Your task to perform on an android device: Add asus rog to the cart on ebay.com, then select checkout. Image 0: 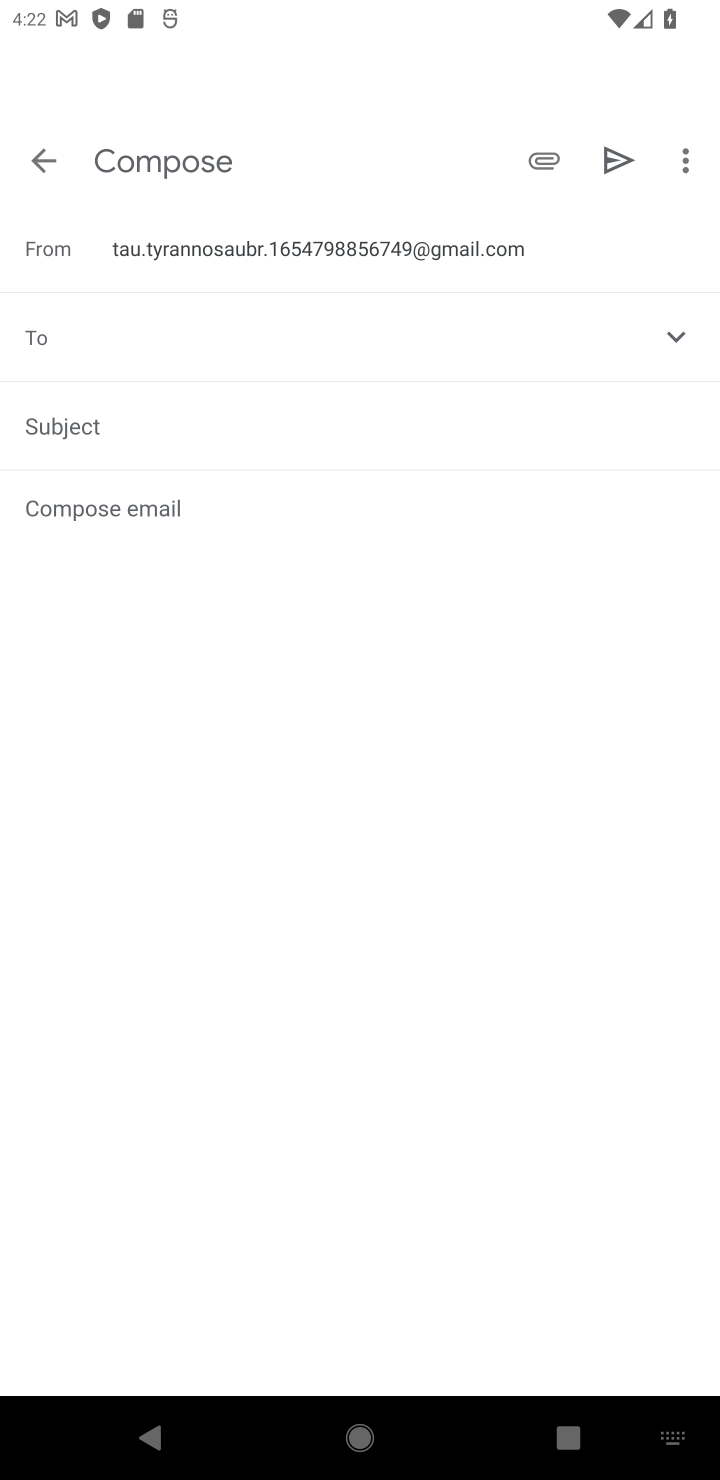
Step 0: press home button
Your task to perform on an android device: Add asus rog to the cart on ebay.com, then select checkout. Image 1: 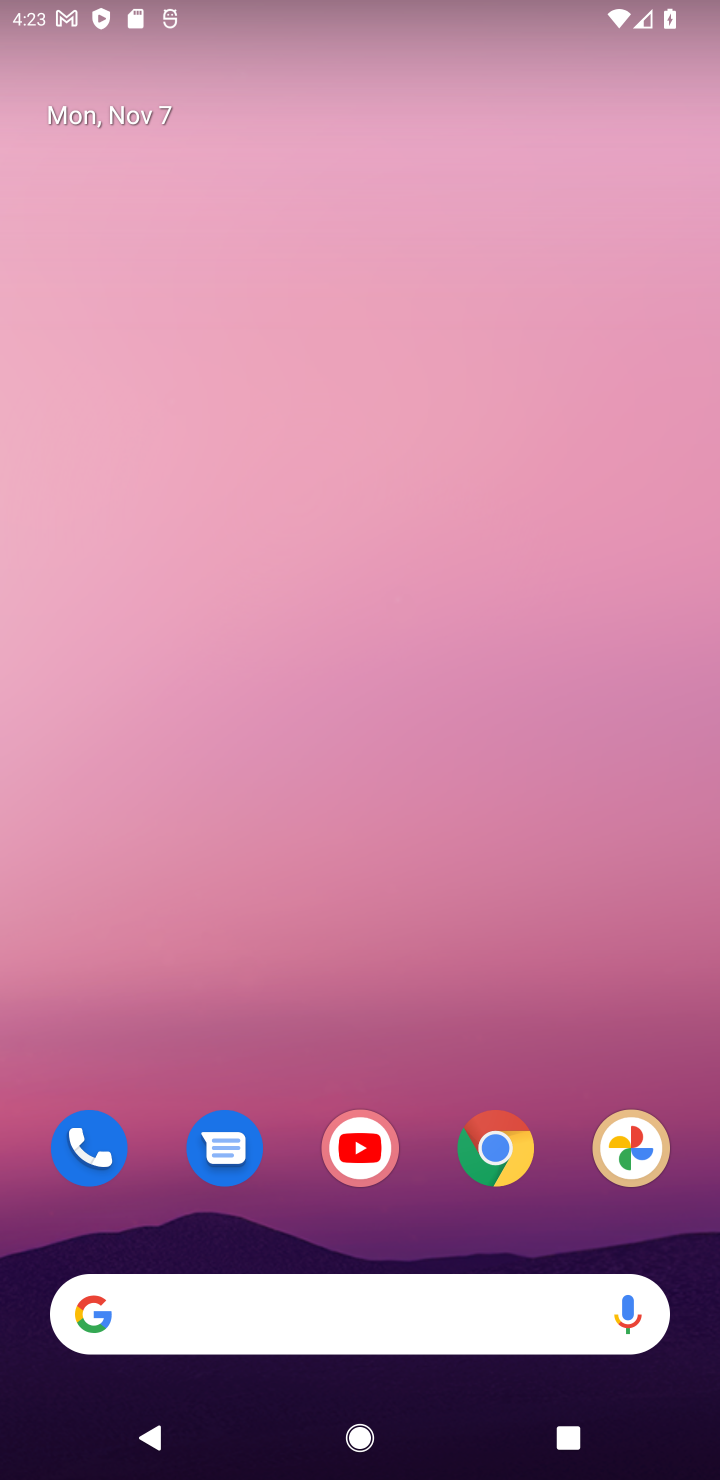
Step 1: click (497, 1152)
Your task to perform on an android device: Add asus rog to the cart on ebay.com, then select checkout. Image 2: 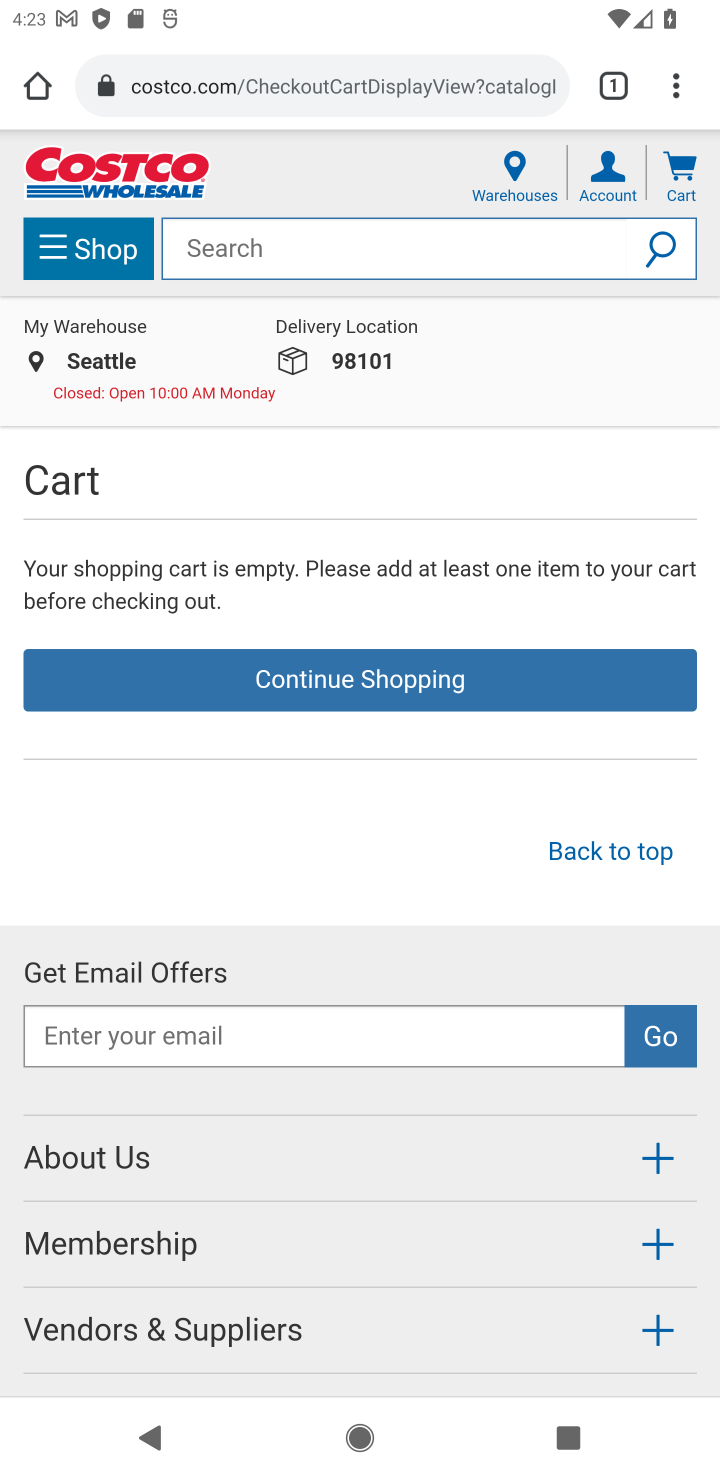
Step 2: click (314, 57)
Your task to perform on an android device: Add asus rog to the cart on ebay.com, then select checkout. Image 3: 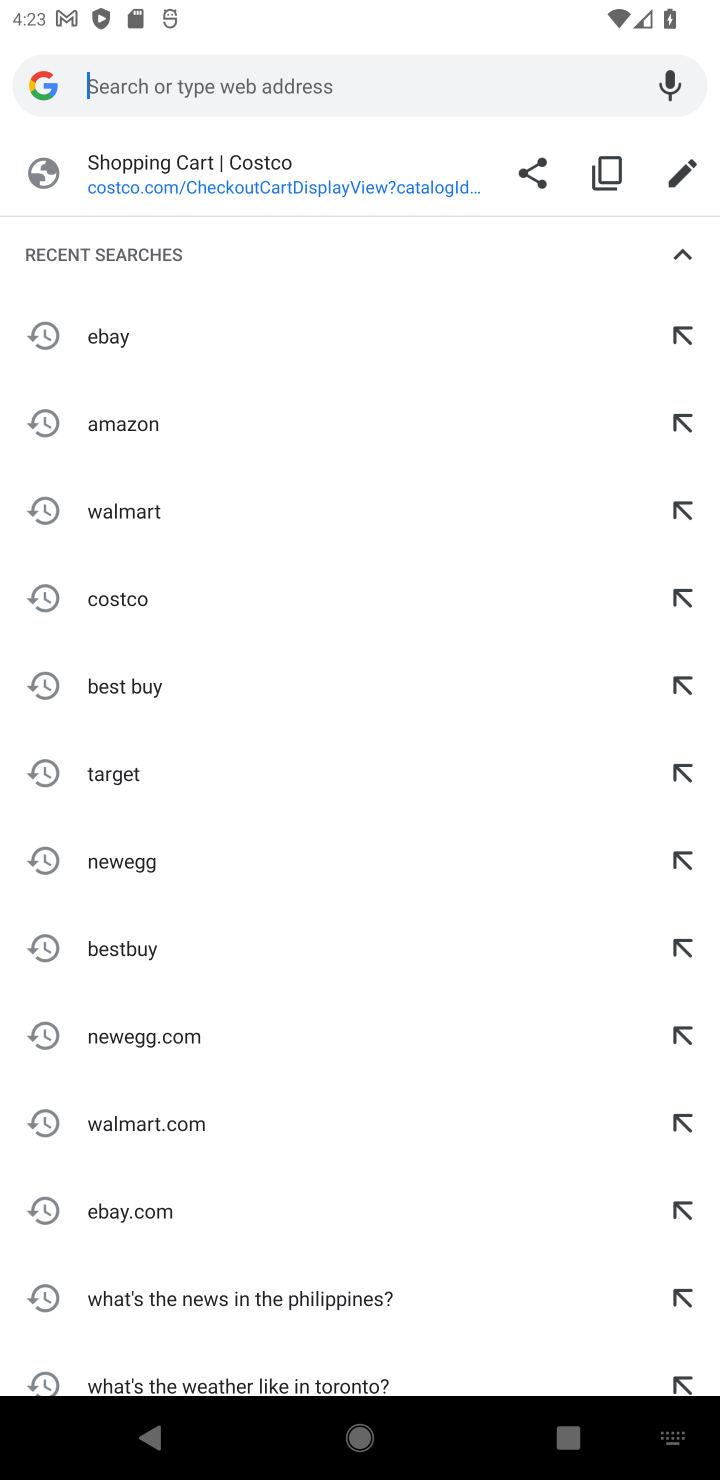
Step 3: type "ebay.com"
Your task to perform on an android device: Add asus rog to the cart on ebay.com, then select checkout. Image 4: 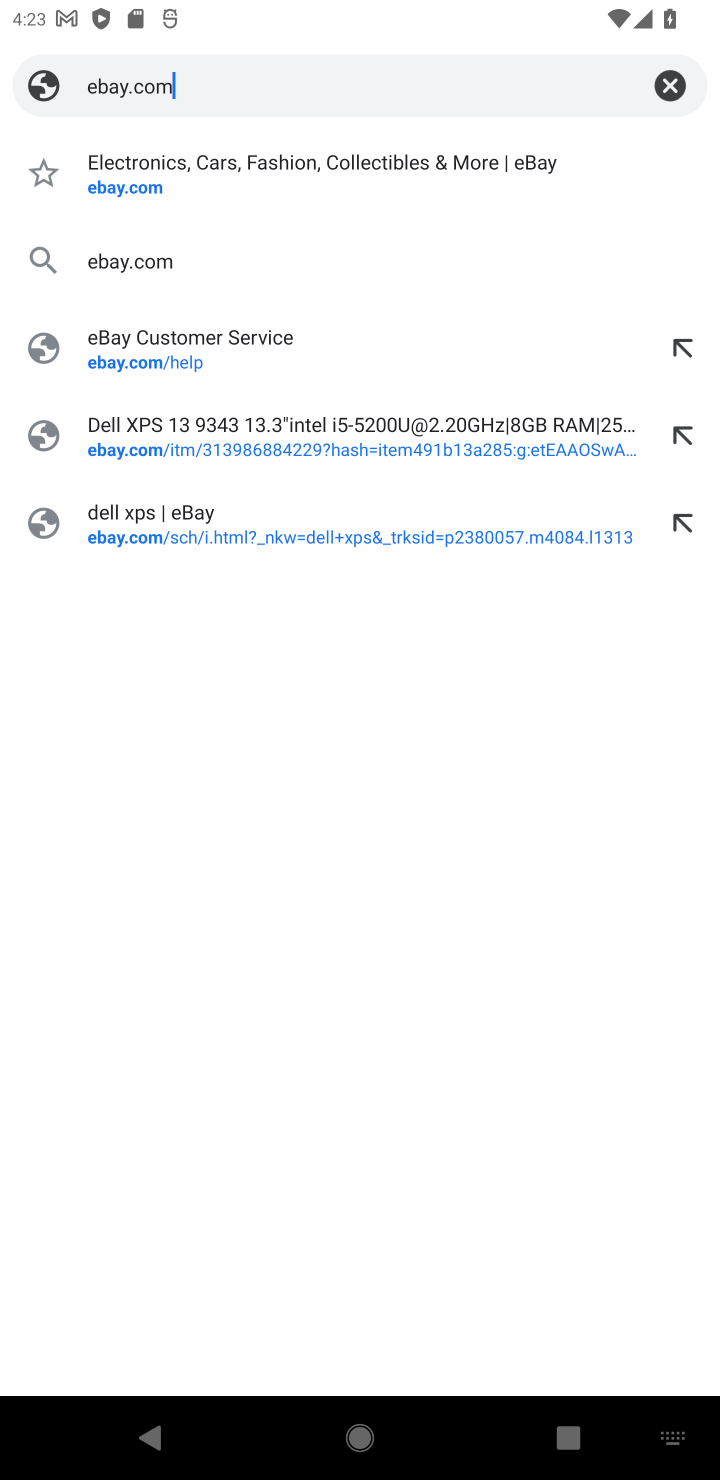
Step 4: click (120, 168)
Your task to perform on an android device: Add asus rog to the cart on ebay.com, then select checkout. Image 5: 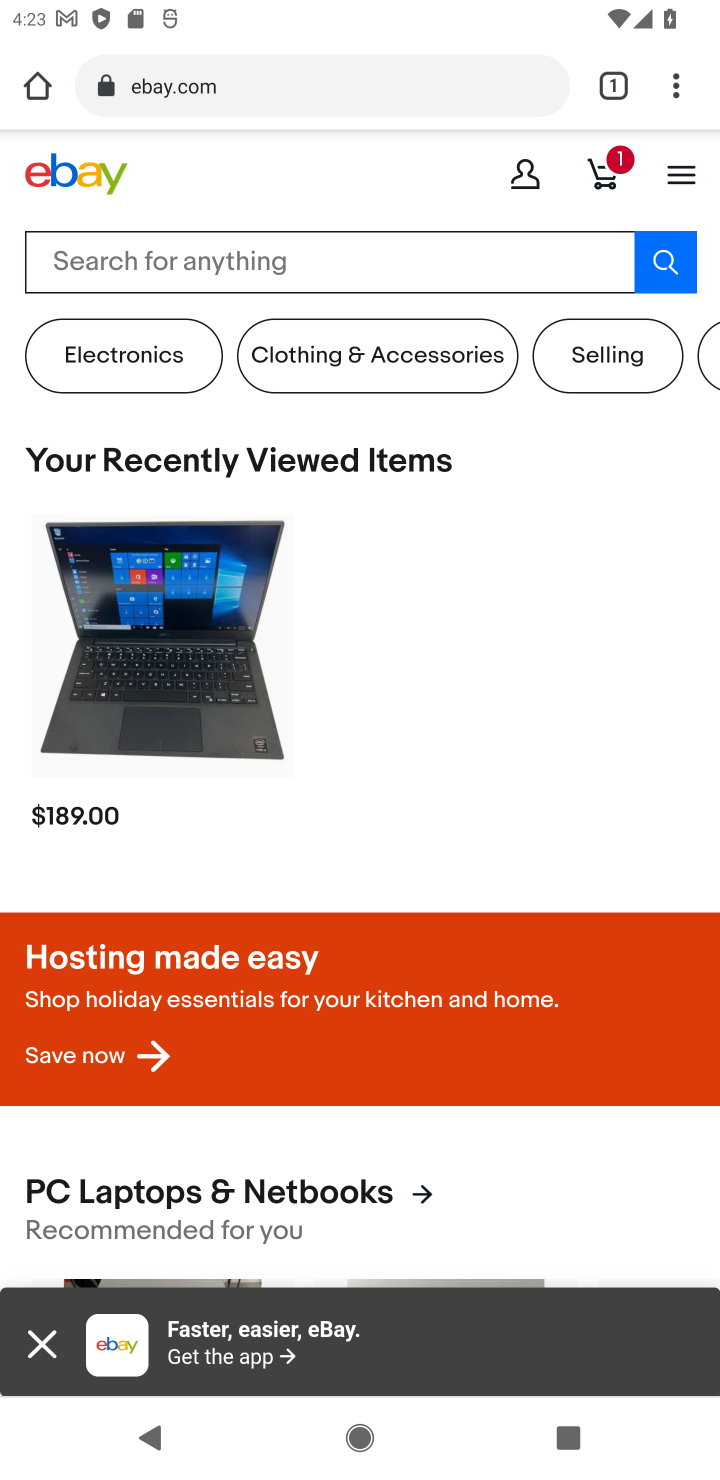
Step 5: click (309, 253)
Your task to perform on an android device: Add asus rog to the cart on ebay.com, then select checkout. Image 6: 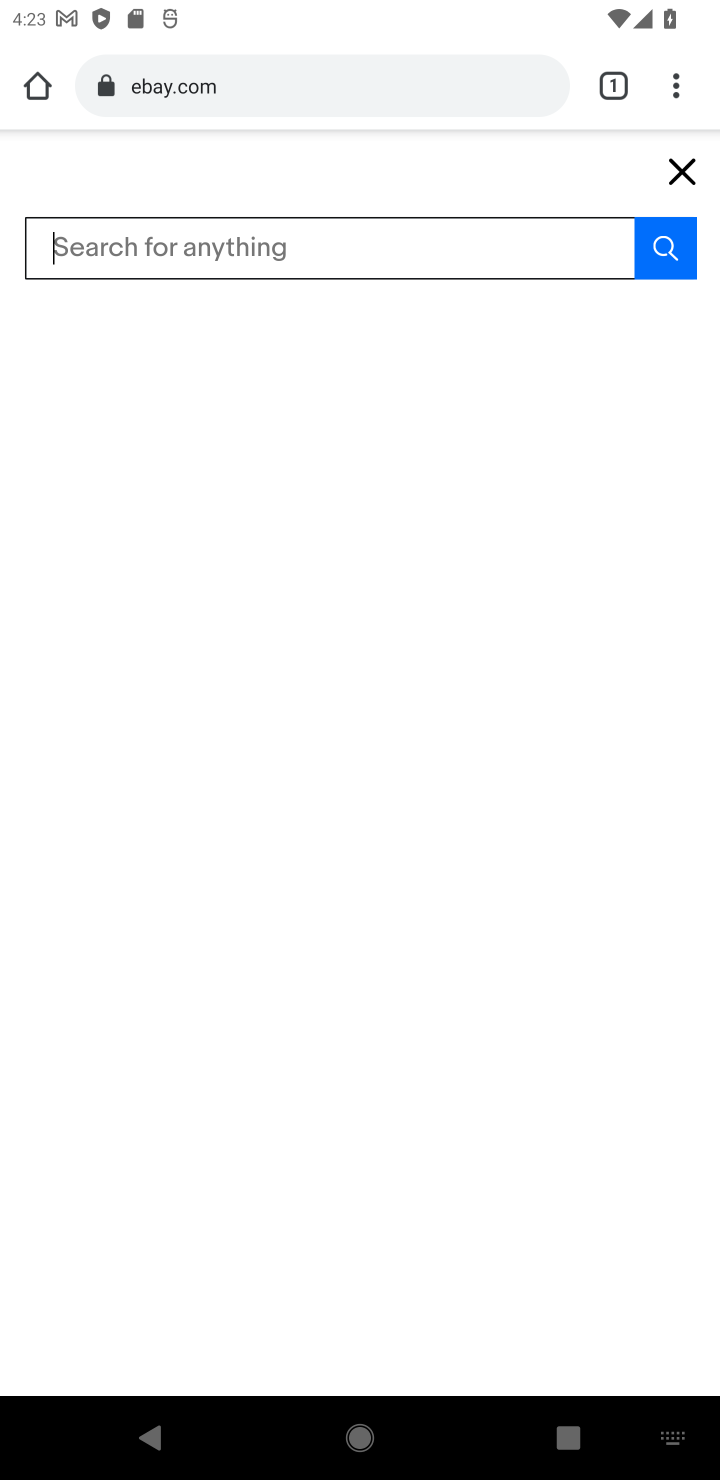
Step 6: type "asus rog"
Your task to perform on an android device: Add asus rog to the cart on ebay.com, then select checkout. Image 7: 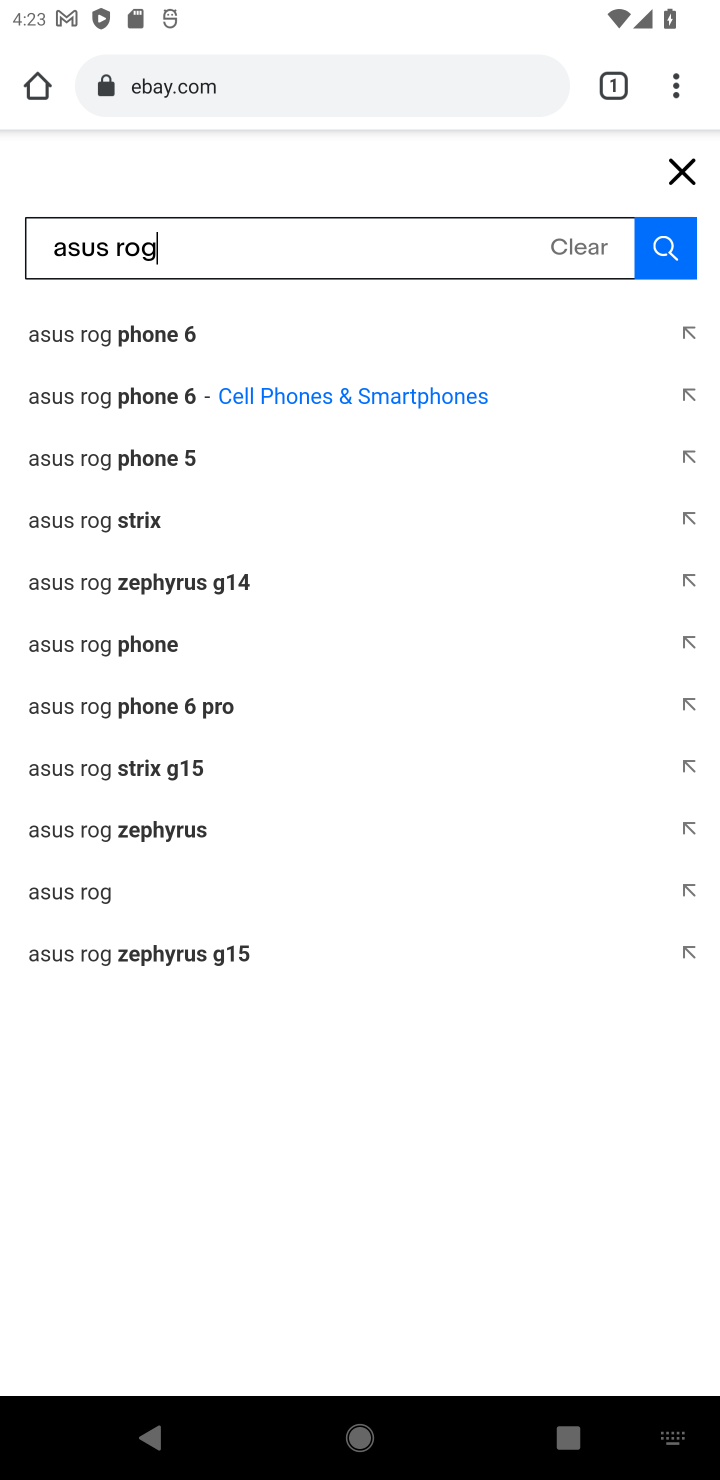
Step 7: click (663, 235)
Your task to perform on an android device: Add asus rog to the cart on ebay.com, then select checkout. Image 8: 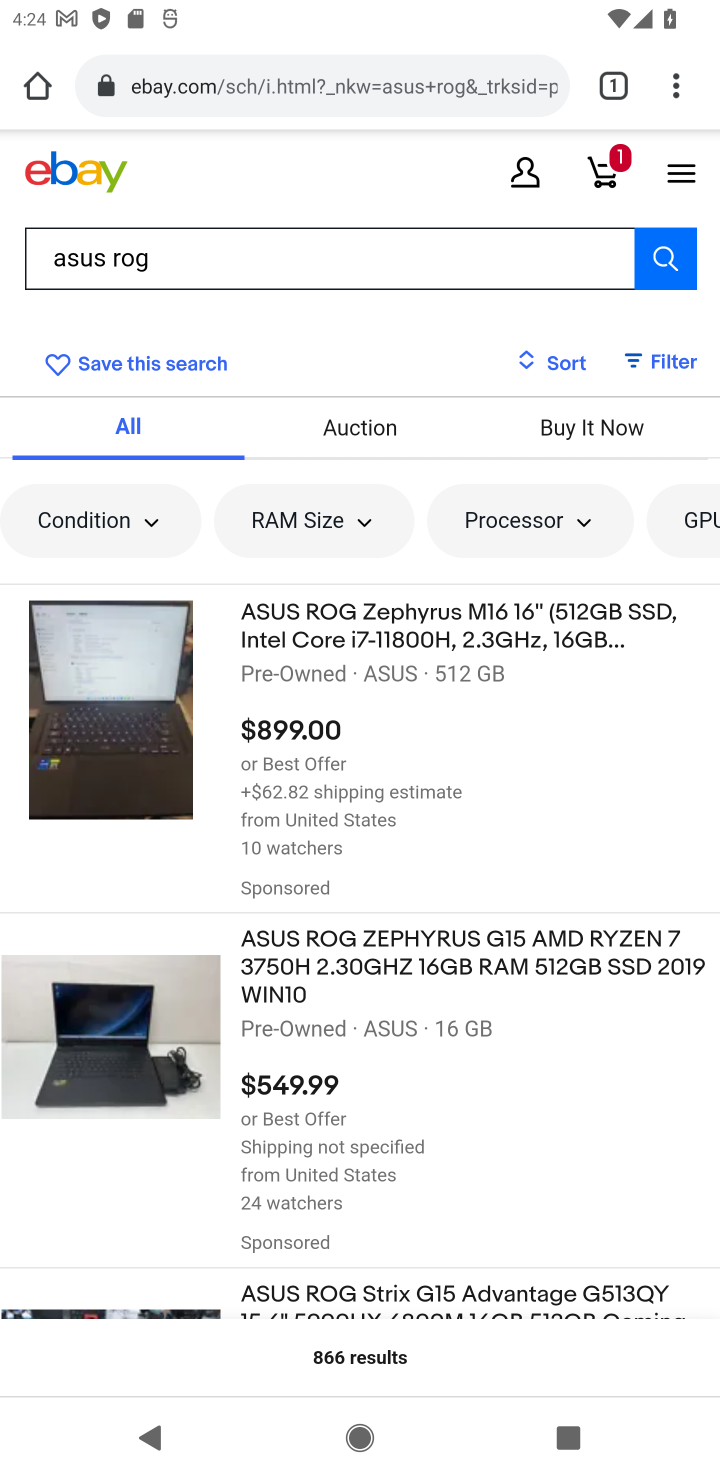
Step 8: click (335, 605)
Your task to perform on an android device: Add asus rog to the cart on ebay.com, then select checkout. Image 9: 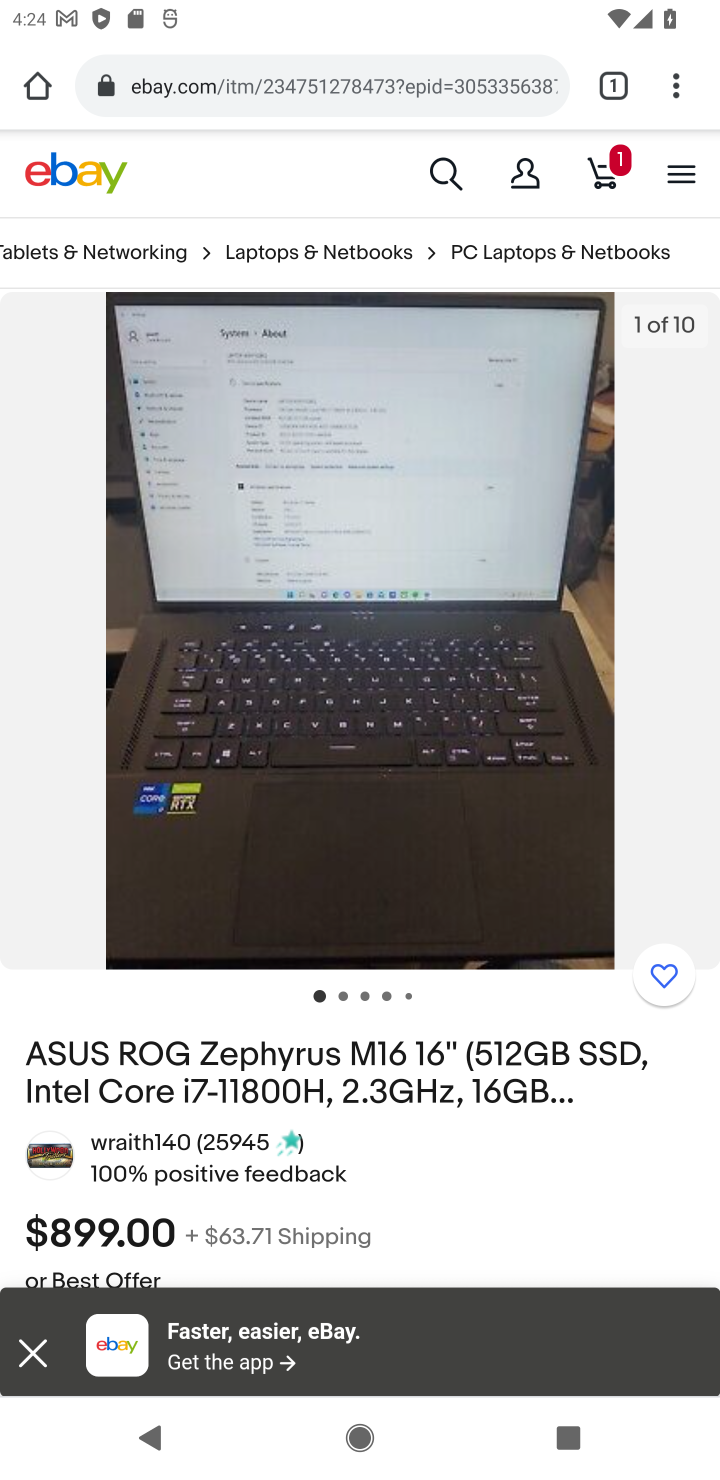
Step 9: drag from (361, 1108) to (363, 315)
Your task to perform on an android device: Add asus rog to the cart on ebay.com, then select checkout. Image 10: 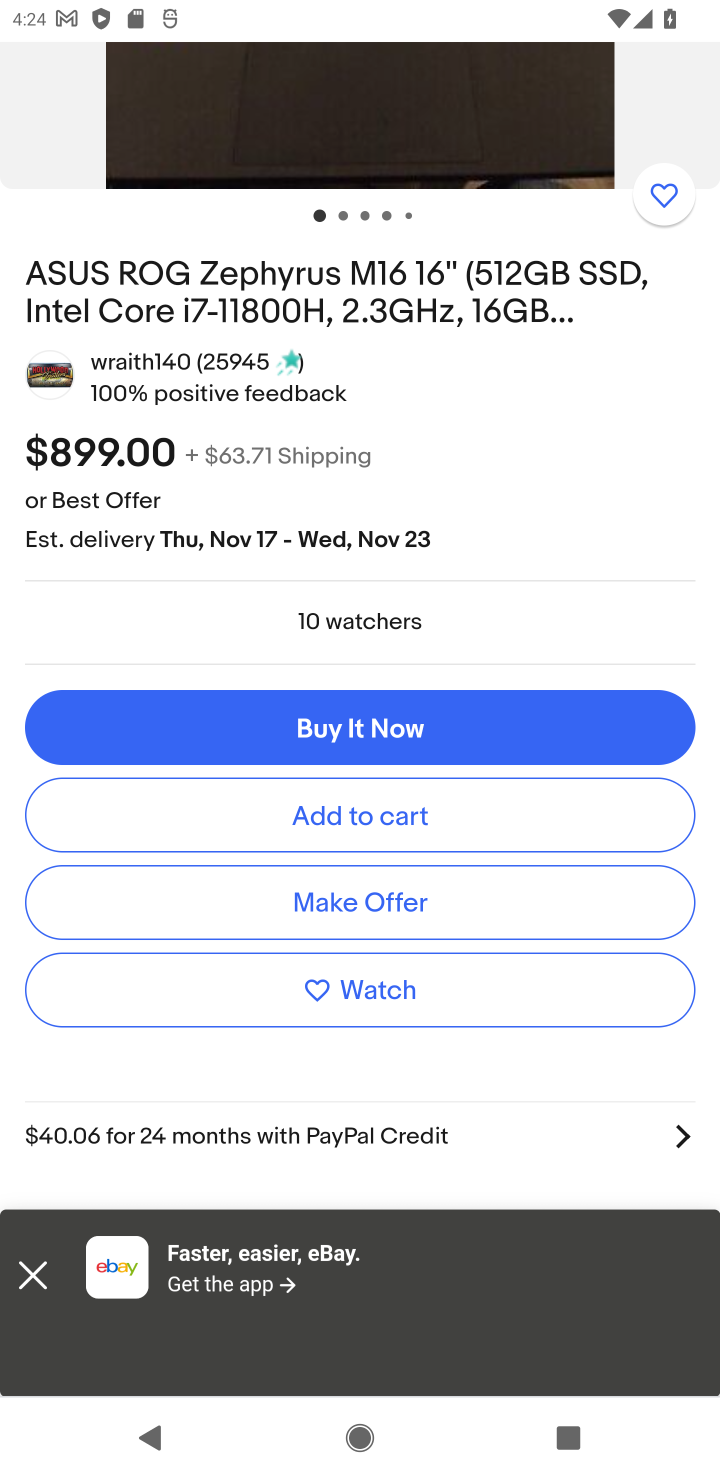
Step 10: click (362, 815)
Your task to perform on an android device: Add asus rog to the cart on ebay.com, then select checkout. Image 11: 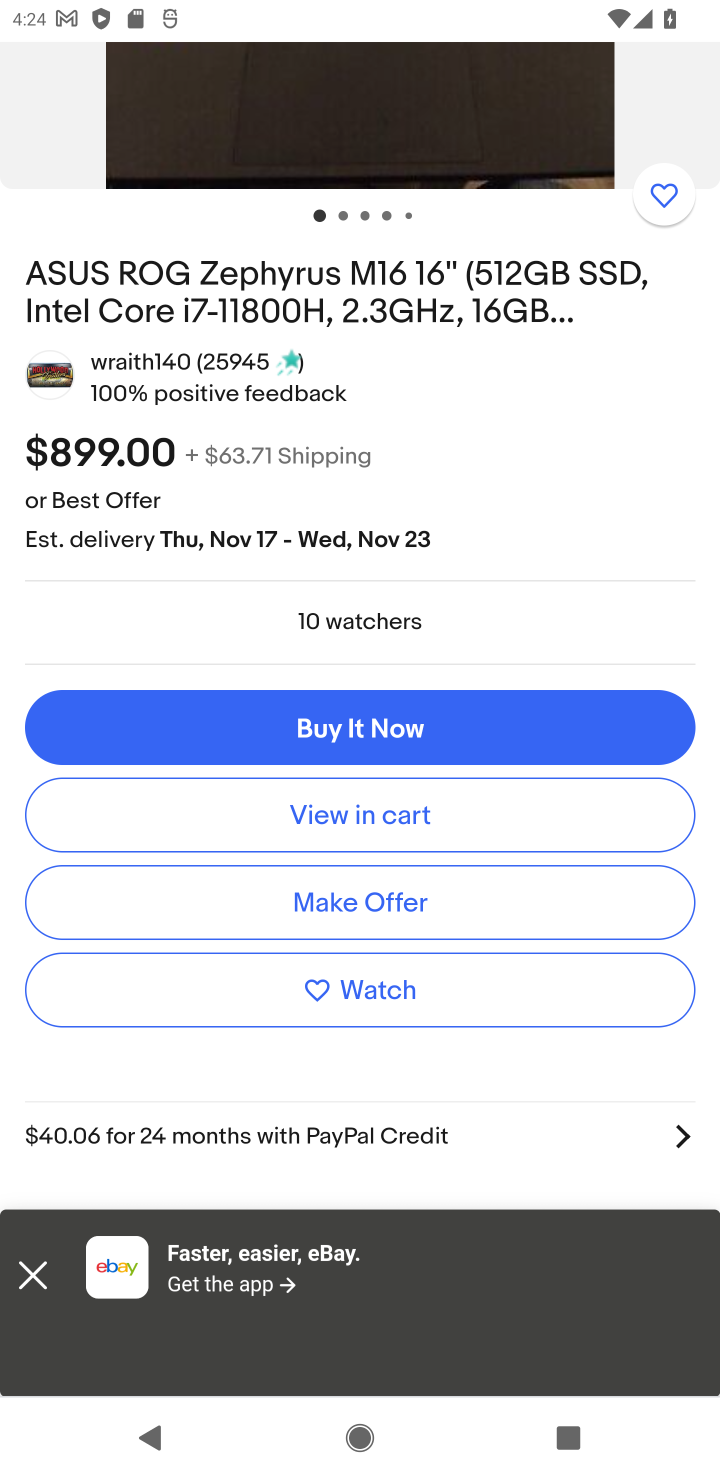
Step 11: click (371, 813)
Your task to perform on an android device: Add asus rog to the cart on ebay.com, then select checkout. Image 12: 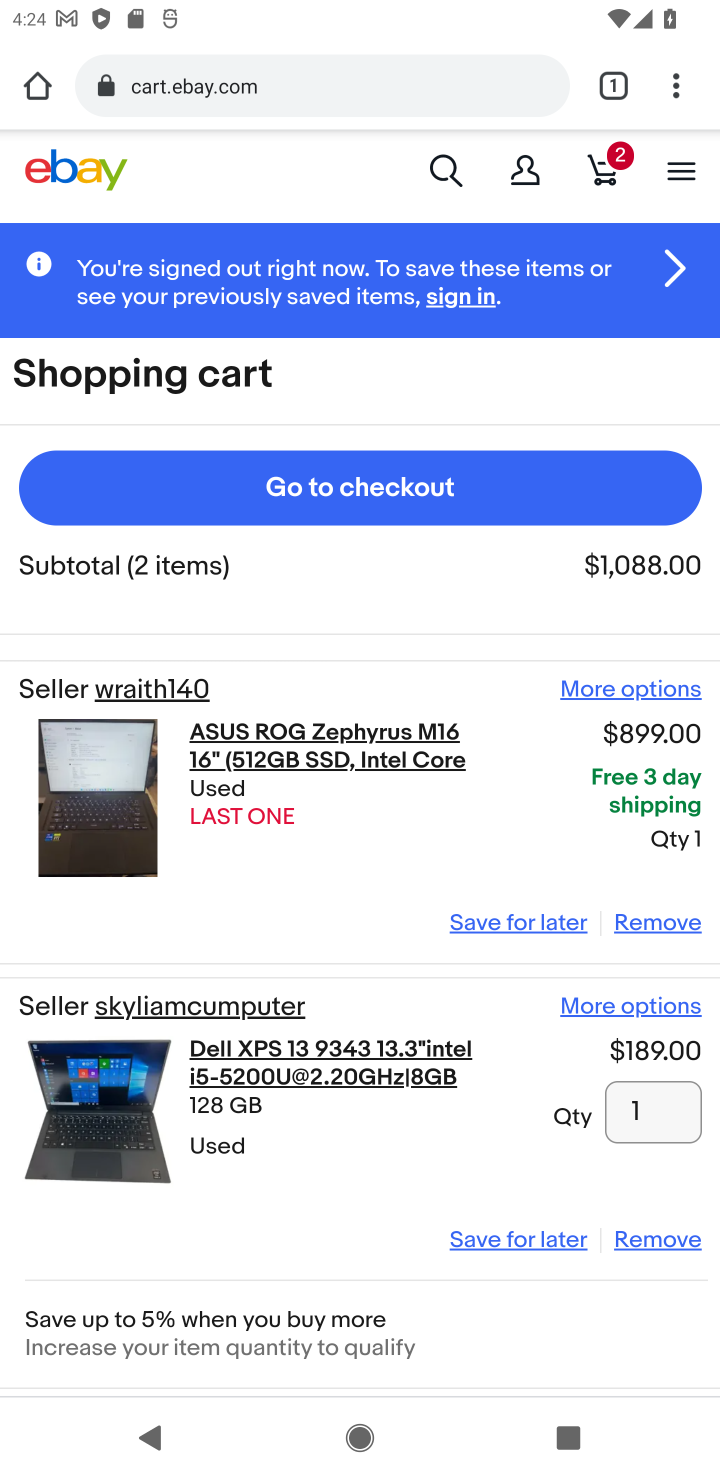
Step 12: click (349, 515)
Your task to perform on an android device: Add asus rog to the cart on ebay.com, then select checkout. Image 13: 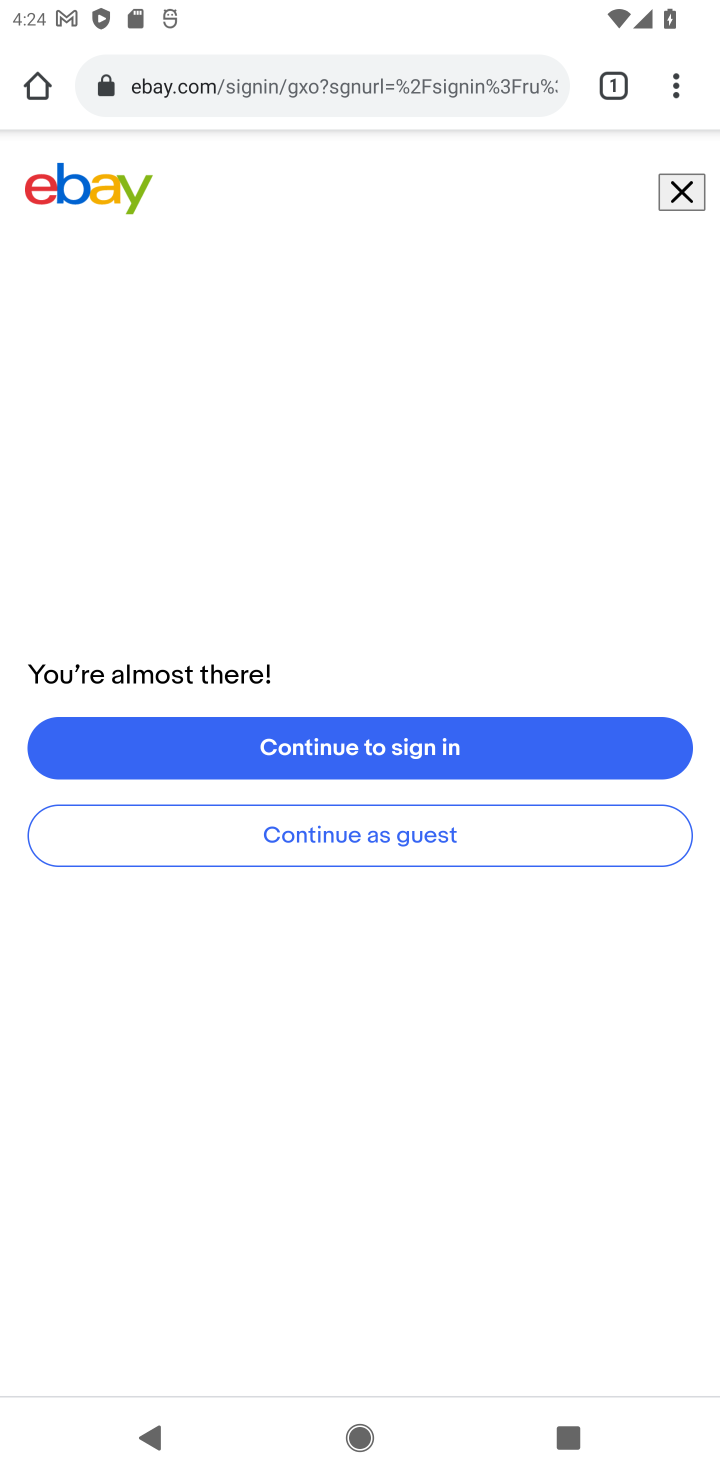
Step 13: task complete